Your task to perform on an android device: Open notification settings Image 0: 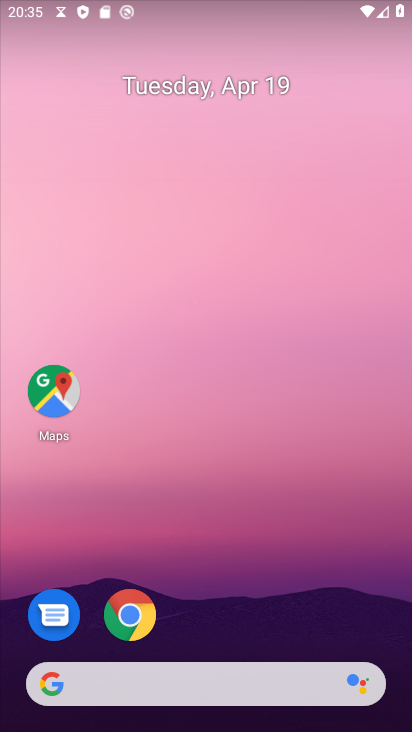
Step 0: drag from (391, 624) to (253, 0)
Your task to perform on an android device: Open notification settings Image 1: 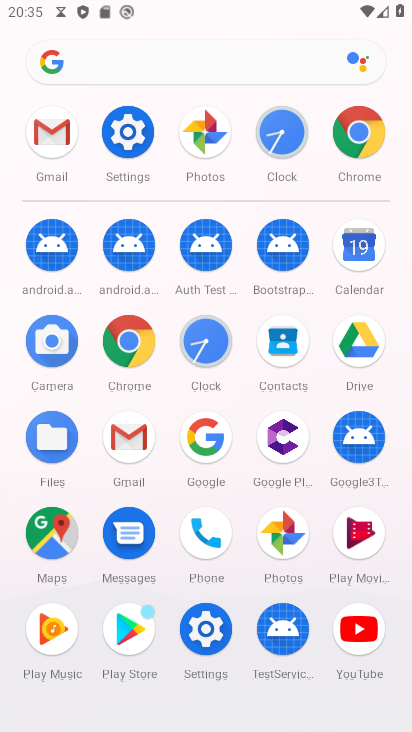
Step 1: drag from (9, 470) to (10, 253)
Your task to perform on an android device: Open notification settings Image 2: 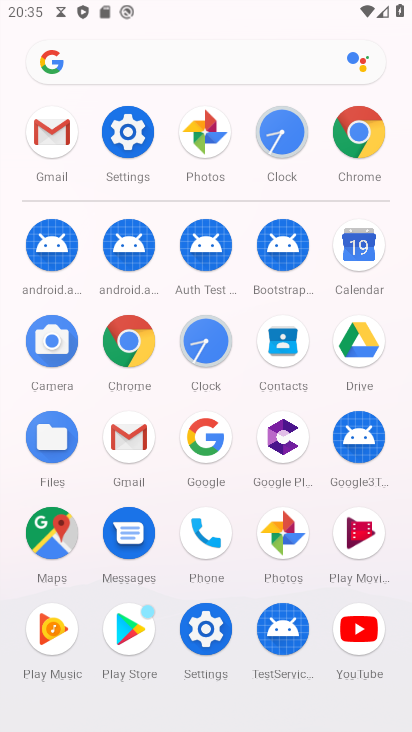
Step 2: click (204, 631)
Your task to perform on an android device: Open notification settings Image 3: 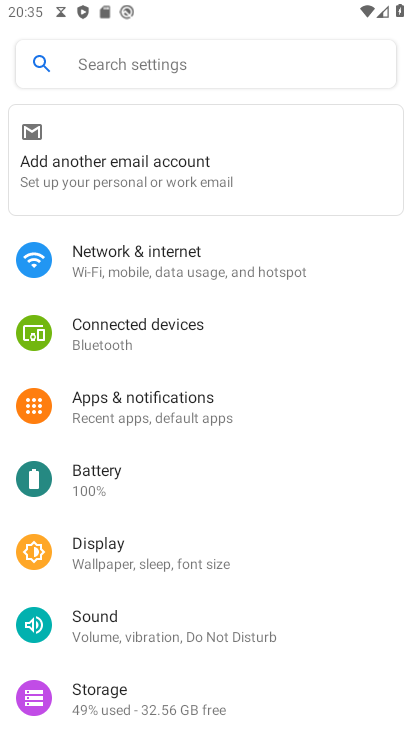
Step 3: click (137, 409)
Your task to perform on an android device: Open notification settings Image 4: 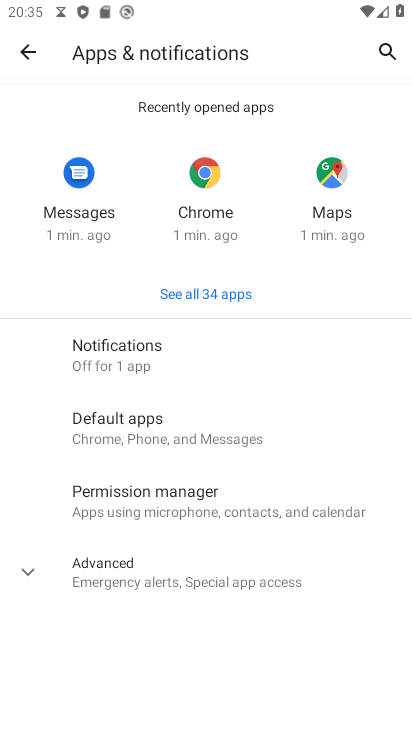
Step 4: click (177, 358)
Your task to perform on an android device: Open notification settings Image 5: 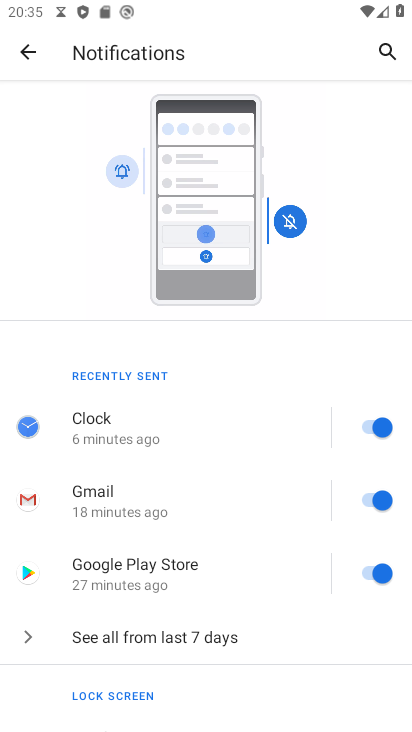
Step 5: drag from (281, 591) to (330, 156)
Your task to perform on an android device: Open notification settings Image 6: 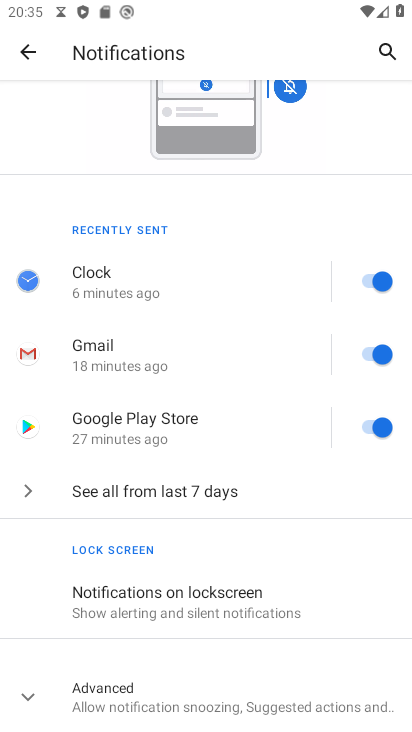
Step 6: click (57, 700)
Your task to perform on an android device: Open notification settings Image 7: 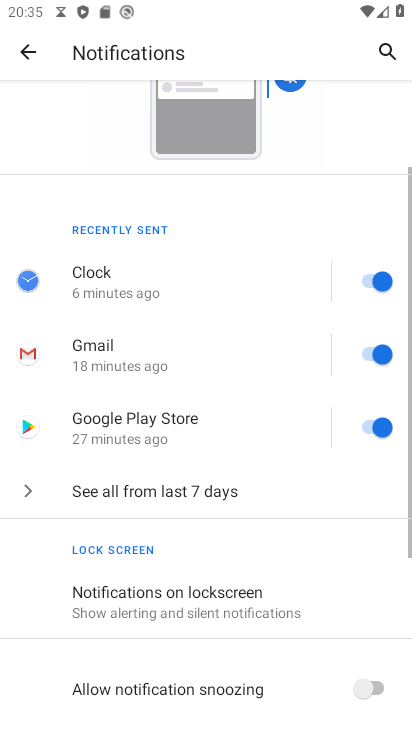
Step 7: task complete